Your task to perform on an android device: Open network settings Image 0: 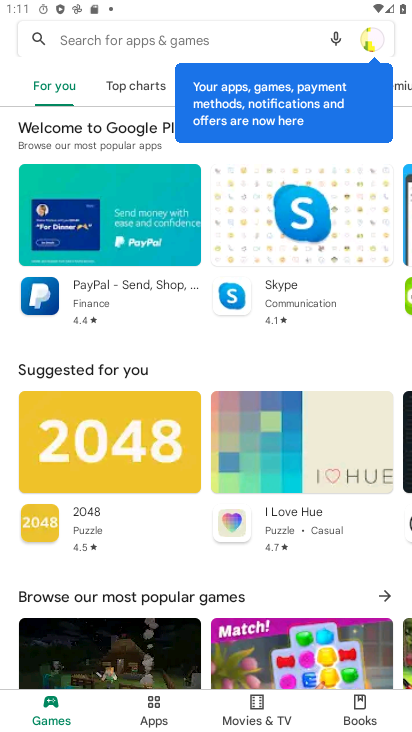
Step 0: press home button
Your task to perform on an android device: Open network settings Image 1: 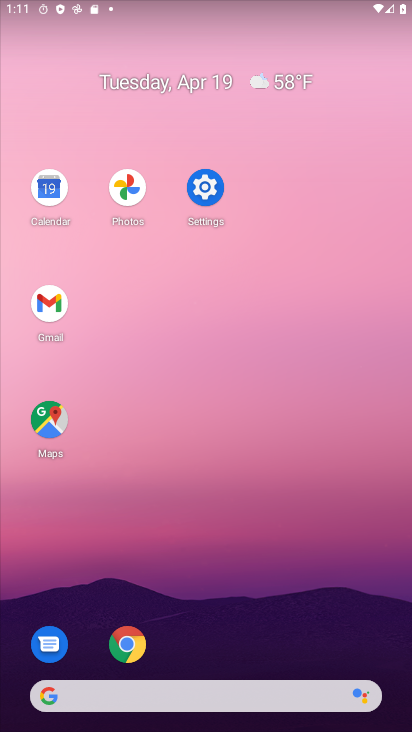
Step 1: click (204, 186)
Your task to perform on an android device: Open network settings Image 2: 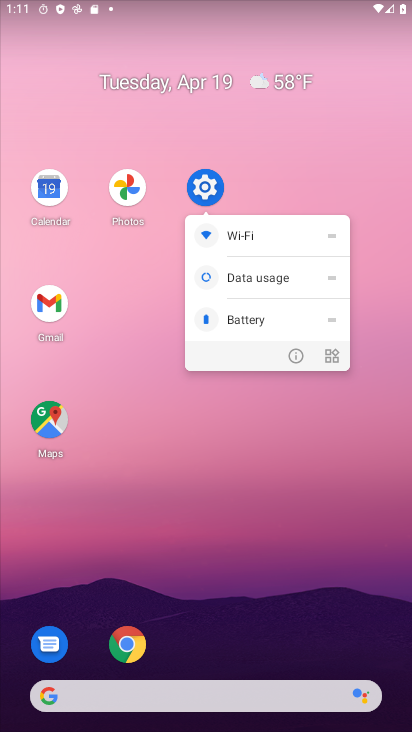
Step 2: click (215, 179)
Your task to perform on an android device: Open network settings Image 3: 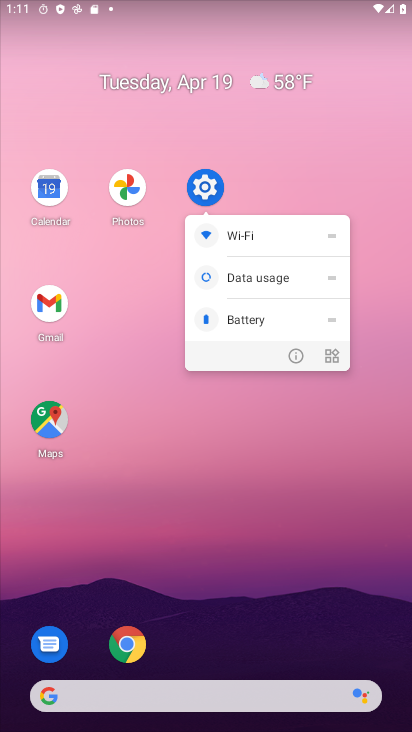
Step 3: click (215, 179)
Your task to perform on an android device: Open network settings Image 4: 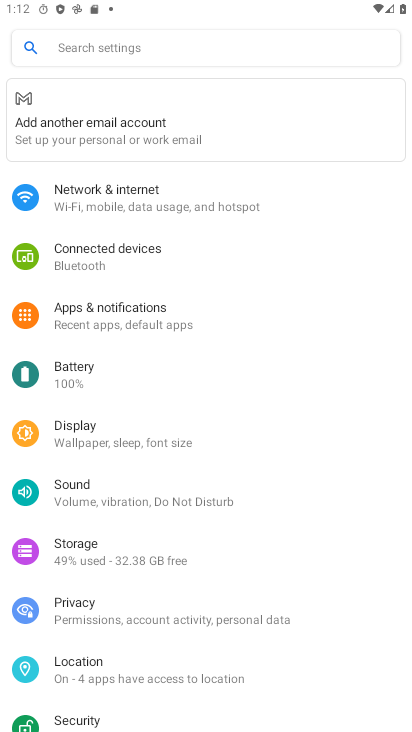
Step 4: click (98, 203)
Your task to perform on an android device: Open network settings Image 5: 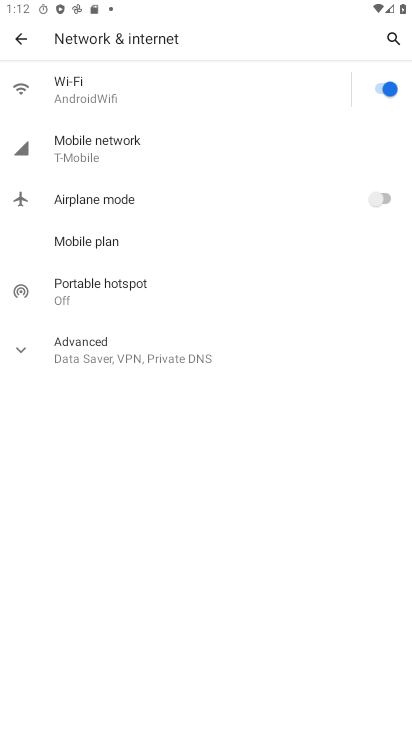
Step 5: click (125, 144)
Your task to perform on an android device: Open network settings Image 6: 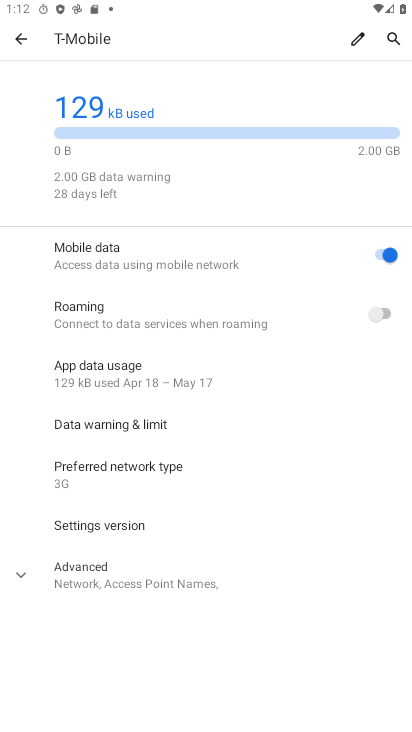
Step 6: task complete